Your task to perform on an android device: turn on javascript in the chrome app Image 0: 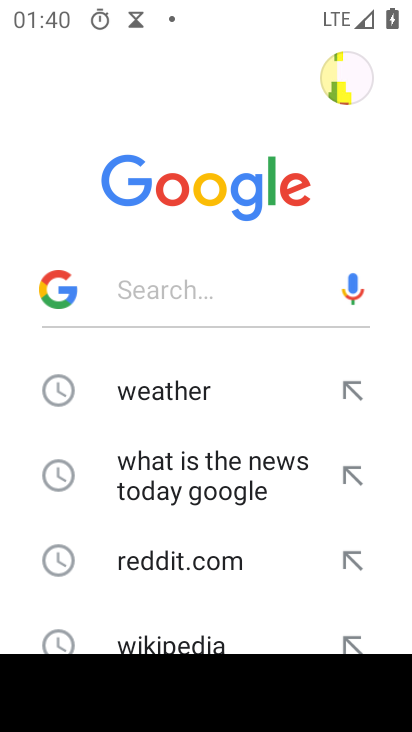
Step 0: press home button
Your task to perform on an android device: turn on javascript in the chrome app Image 1: 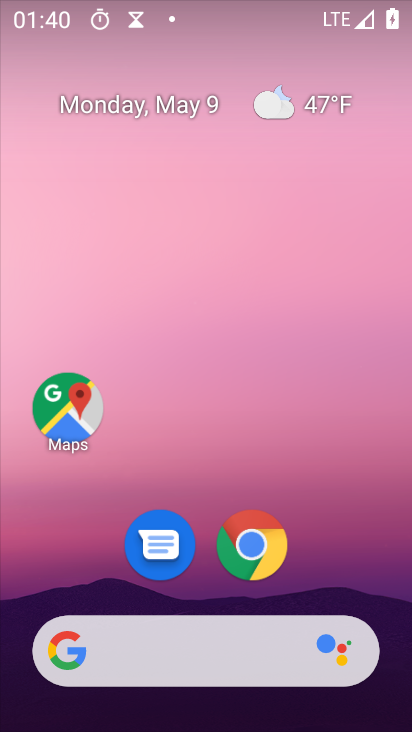
Step 1: drag from (338, 586) to (223, 0)
Your task to perform on an android device: turn on javascript in the chrome app Image 2: 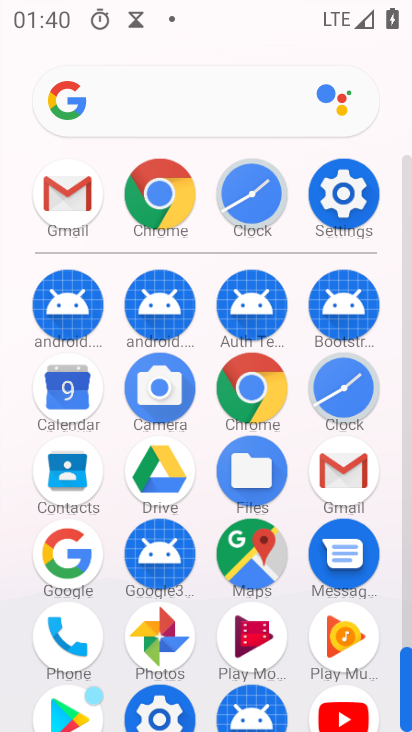
Step 2: click (229, 397)
Your task to perform on an android device: turn on javascript in the chrome app Image 3: 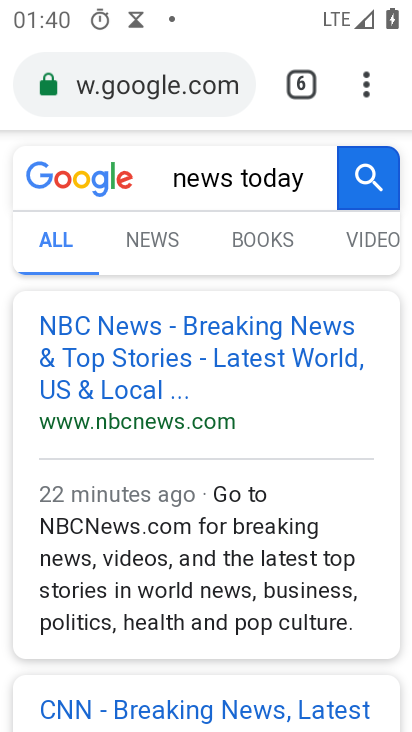
Step 3: drag from (362, 75) to (131, 612)
Your task to perform on an android device: turn on javascript in the chrome app Image 4: 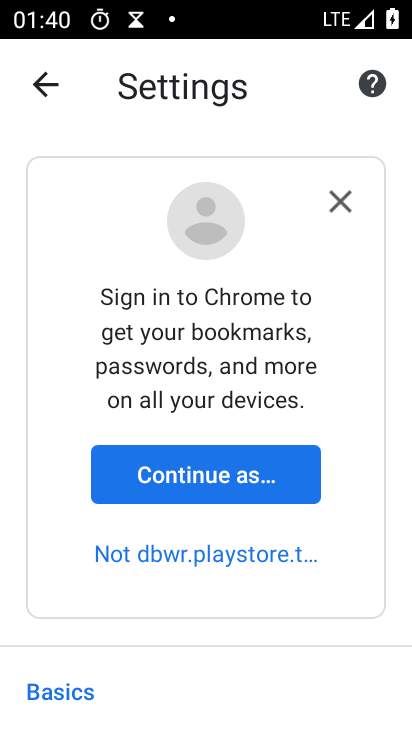
Step 4: drag from (201, 694) to (272, 1)
Your task to perform on an android device: turn on javascript in the chrome app Image 5: 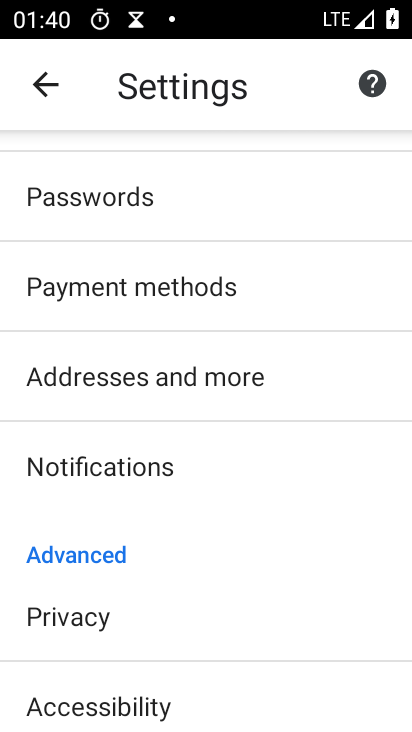
Step 5: drag from (161, 645) to (206, 122)
Your task to perform on an android device: turn on javascript in the chrome app Image 6: 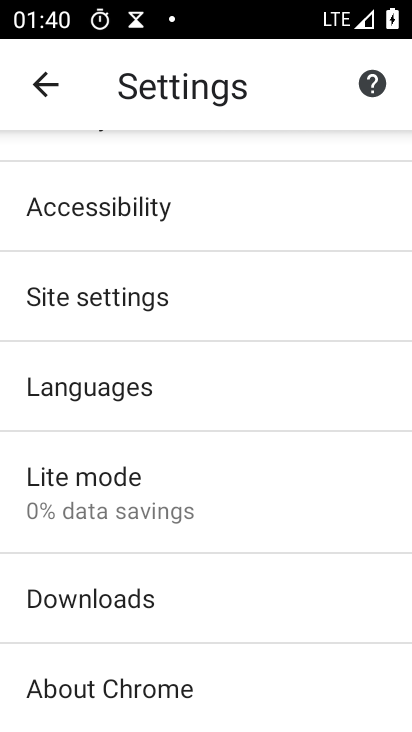
Step 6: click (131, 309)
Your task to perform on an android device: turn on javascript in the chrome app Image 7: 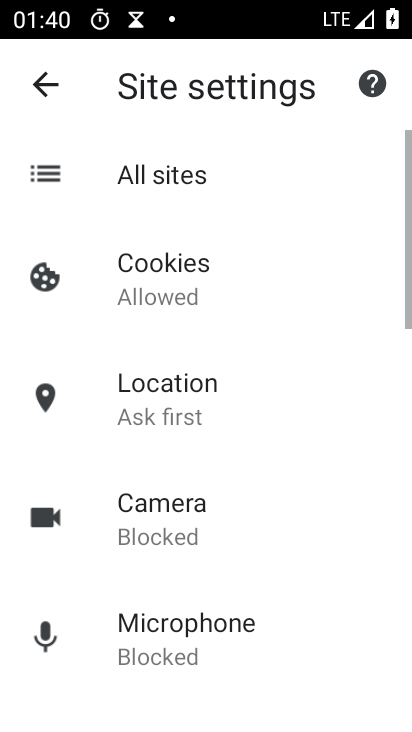
Step 7: drag from (264, 699) to (316, 156)
Your task to perform on an android device: turn on javascript in the chrome app Image 8: 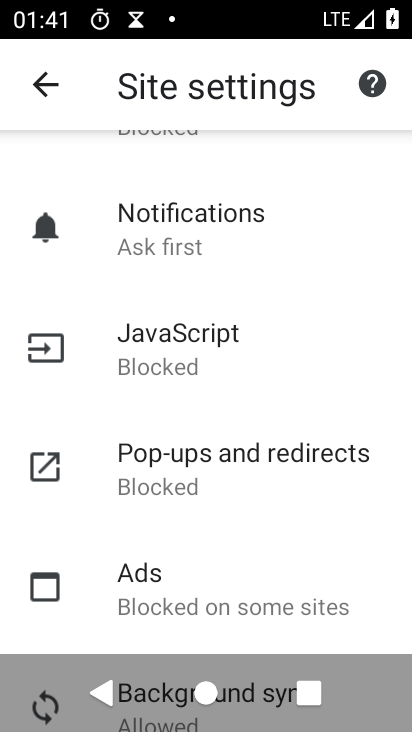
Step 8: click (218, 349)
Your task to perform on an android device: turn on javascript in the chrome app Image 9: 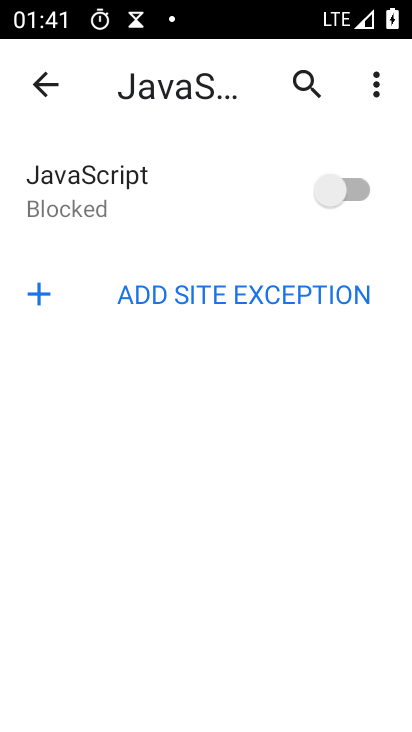
Step 9: click (346, 183)
Your task to perform on an android device: turn on javascript in the chrome app Image 10: 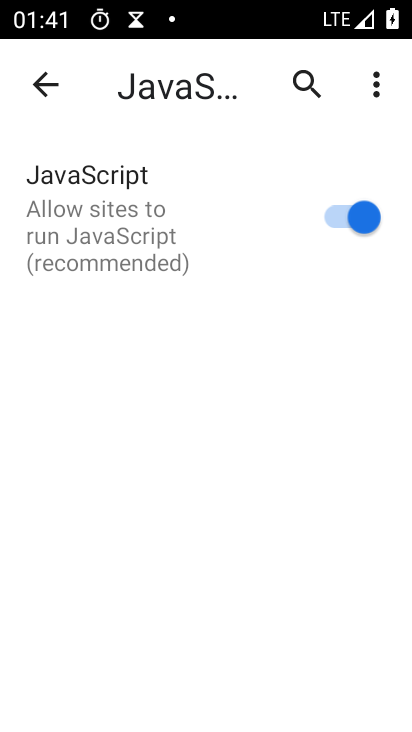
Step 10: task complete